Your task to perform on an android device: Open Youtube and go to the subscriptions tab Image 0: 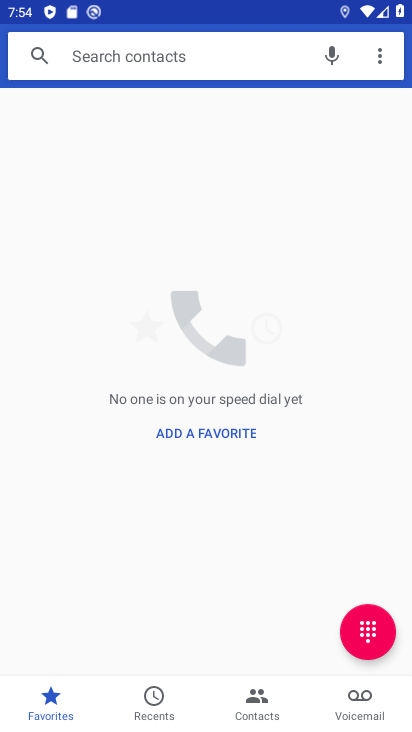
Step 0: press home button
Your task to perform on an android device: Open Youtube and go to the subscriptions tab Image 1: 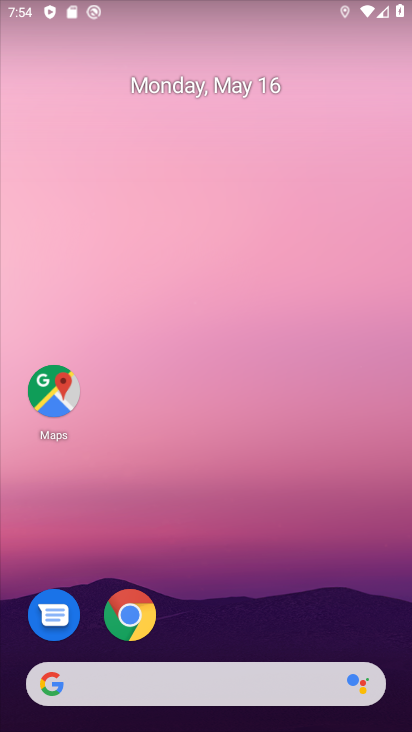
Step 1: drag from (202, 612) to (267, 114)
Your task to perform on an android device: Open Youtube and go to the subscriptions tab Image 2: 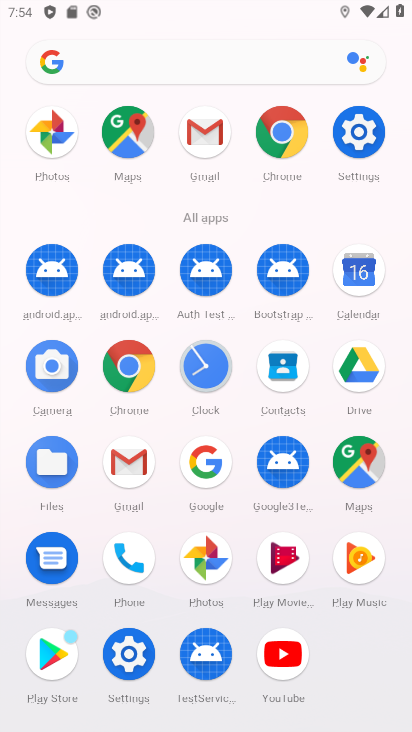
Step 2: click (284, 664)
Your task to perform on an android device: Open Youtube and go to the subscriptions tab Image 3: 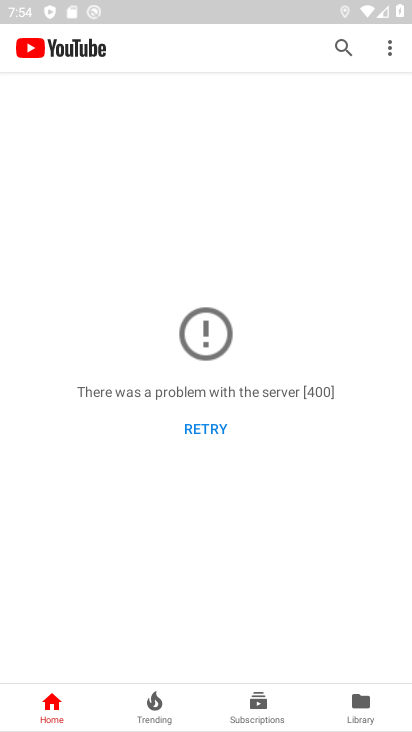
Step 3: click (271, 713)
Your task to perform on an android device: Open Youtube and go to the subscriptions tab Image 4: 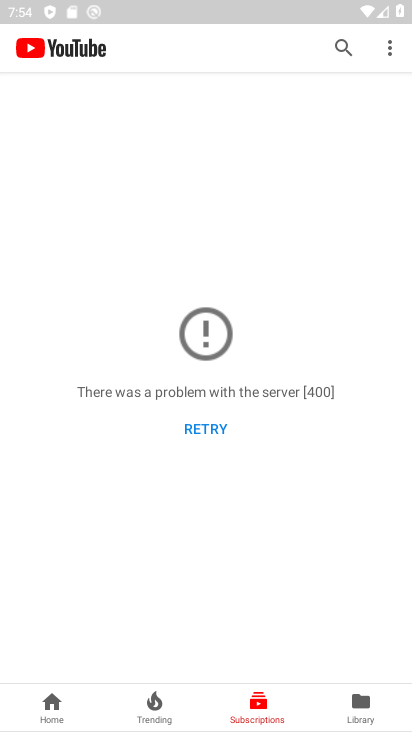
Step 4: task complete